Your task to perform on an android device: toggle notifications settings in the gmail app Image 0: 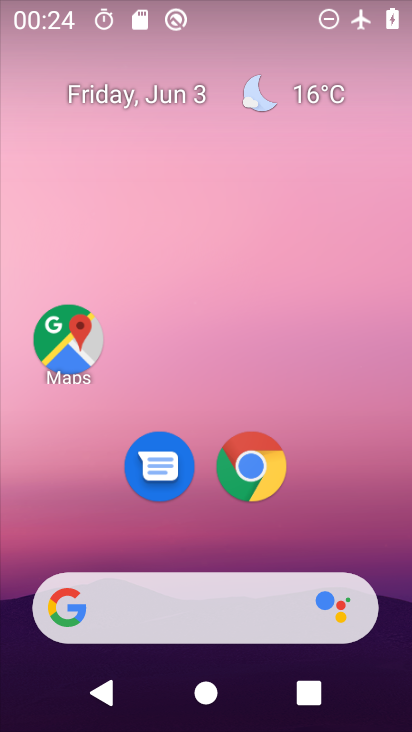
Step 0: drag from (191, 539) to (195, 236)
Your task to perform on an android device: toggle notifications settings in the gmail app Image 1: 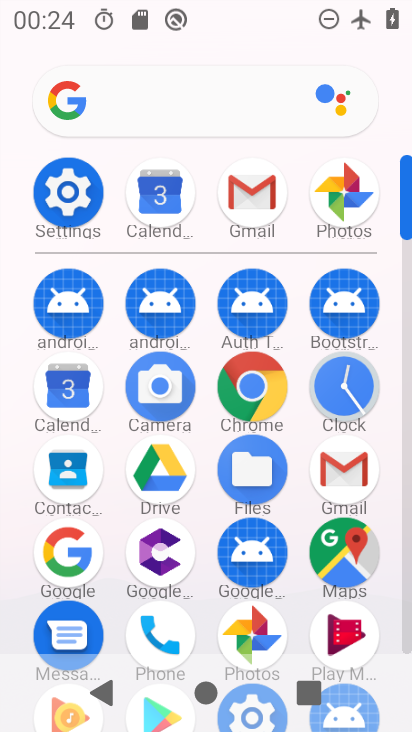
Step 1: click (237, 201)
Your task to perform on an android device: toggle notifications settings in the gmail app Image 2: 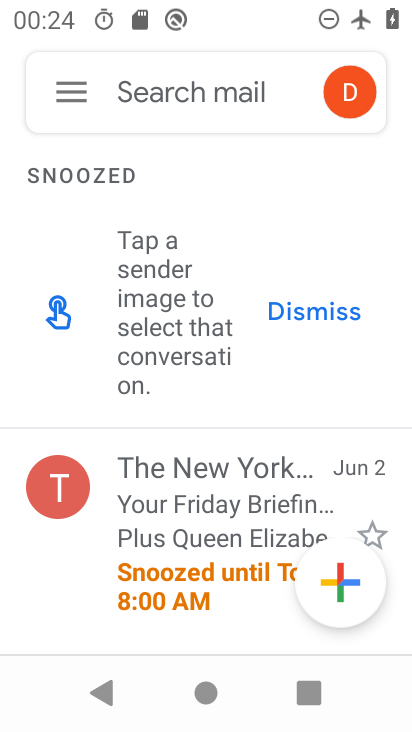
Step 2: click (76, 90)
Your task to perform on an android device: toggle notifications settings in the gmail app Image 3: 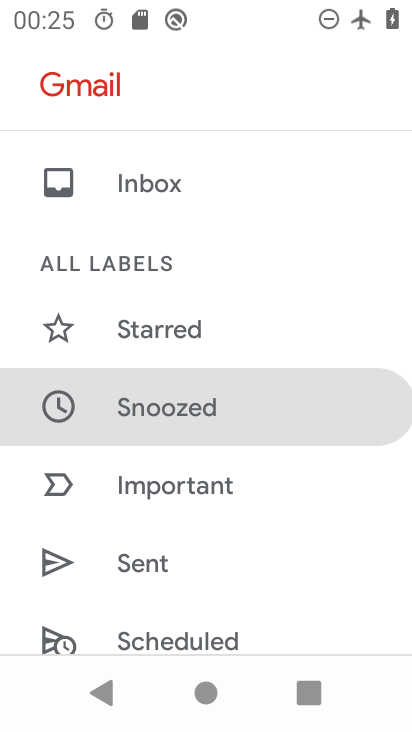
Step 3: drag from (191, 534) to (188, 203)
Your task to perform on an android device: toggle notifications settings in the gmail app Image 4: 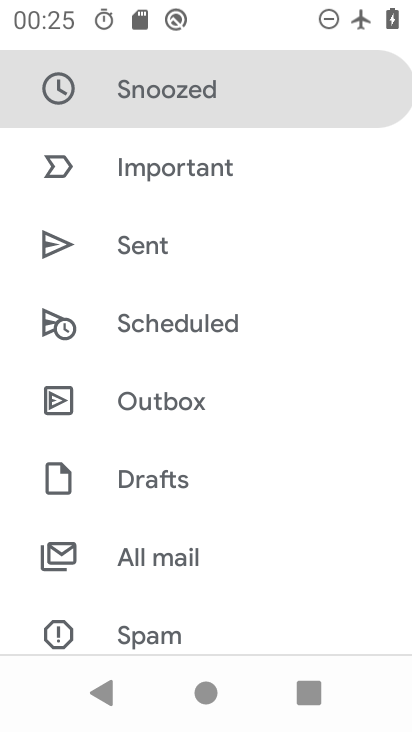
Step 4: drag from (205, 587) to (211, 365)
Your task to perform on an android device: toggle notifications settings in the gmail app Image 5: 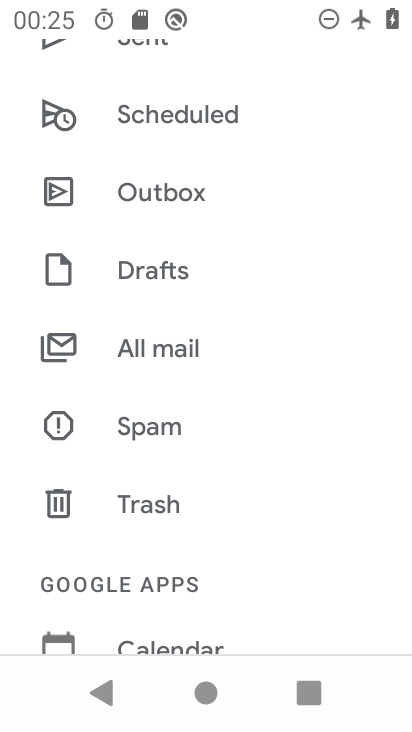
Step 5: drag from (188, 604) to (216, 389)
Your task to perform on an android device: toggle notifications settings in the gmail app Image 6: 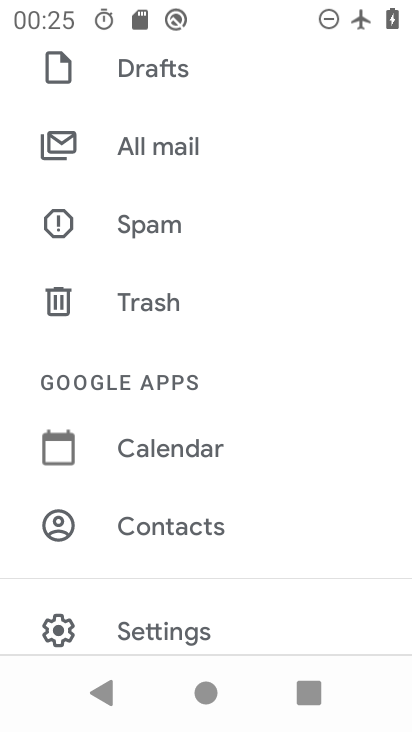
Step 6: click (166, 618)
Your task to perform on an android device: toggle notifications settings in the gmail app Image 7: 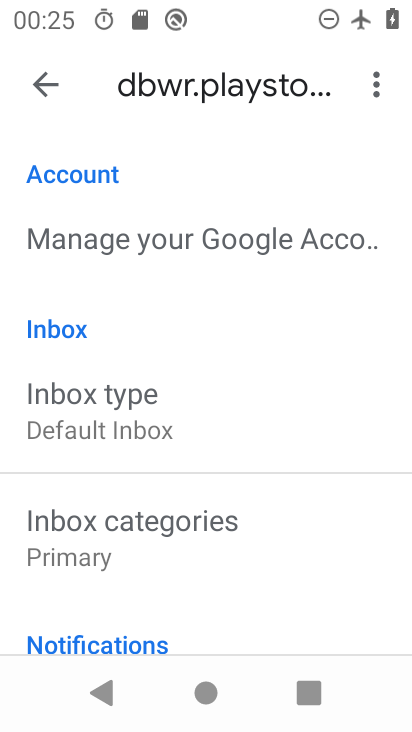
Step 7: drag from (182, 544) to (193, 318)
Your task to perform on an android device: toggle notifications settings in the gmail app Image 8: 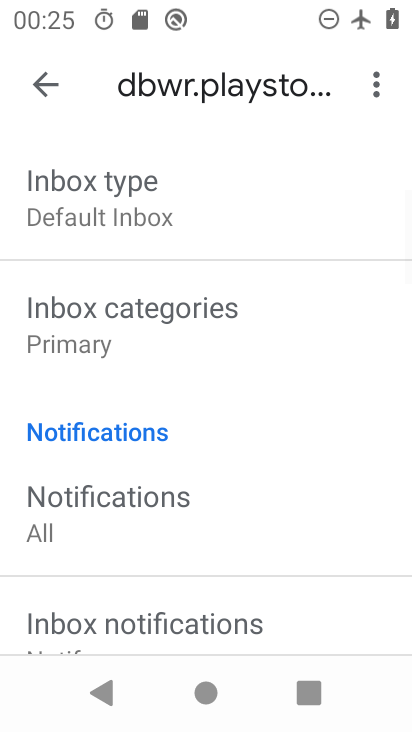
Step 8: drag from (219, 518) to (234, 344)
Your task to perform on an android device: toggle notifications settings in the gmail app Image 9: 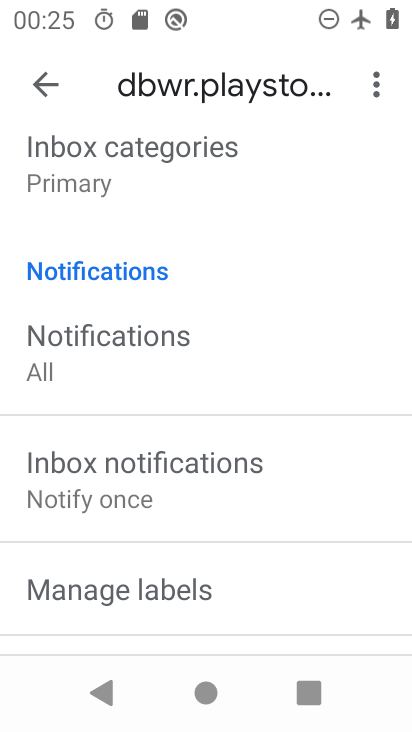
Step 9: drag from (208, 567) to (242, 341)
Your task to perform on an android device: toggle notifications settings in the gmail app Image 10: 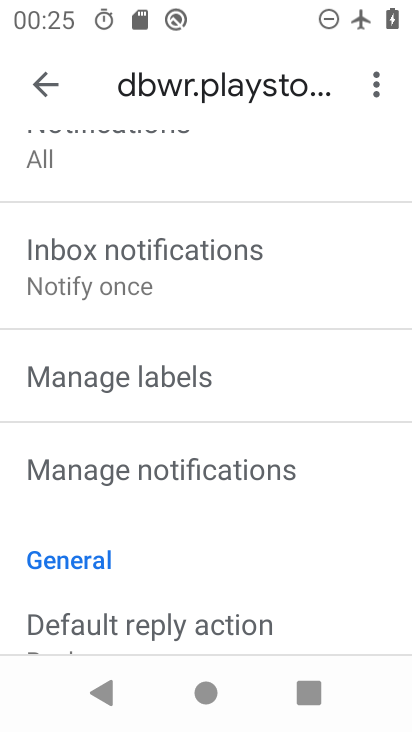
Step 10: click (201, 473)
Your task to perform on an android device: toggle notifications settings in the gmail app Image 11: 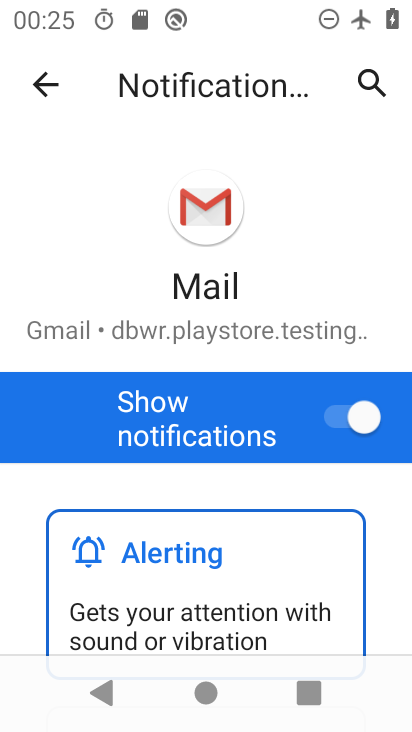
Step 11: click (340, 407)
Your task to perform on an android device: toggle notifications settings in the gmail app Image 12: 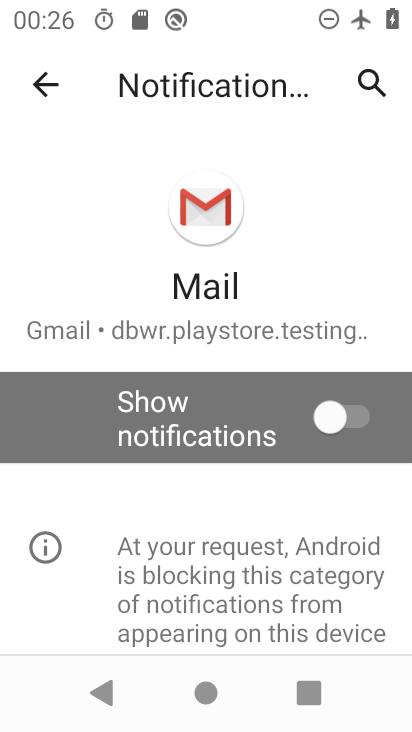
Step 12: task complete